Your task to perform on an android device: Open Youtube and go to the subscriptions tab Image 0: 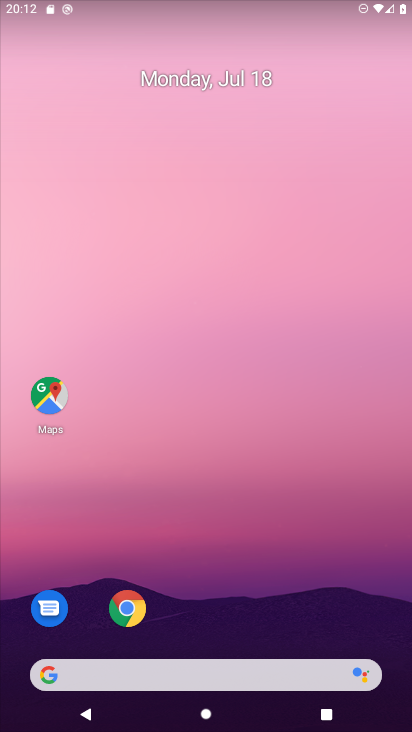
Step 0: drag from (204, 636) to (301, 111)
Your task to perform on an android device: Open Youtube and go to the subscriptions tab Image 1: 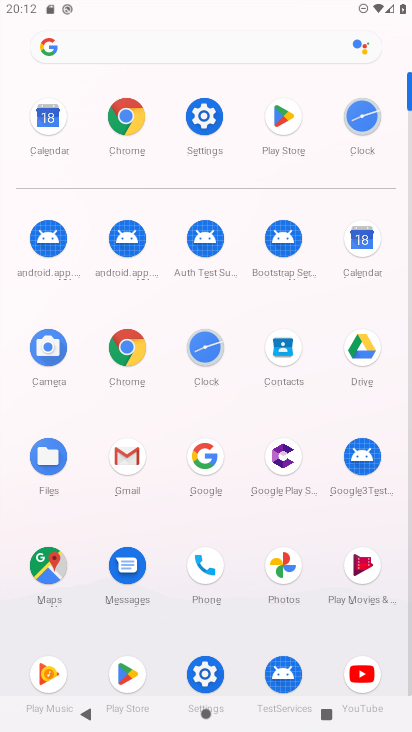
Step 1: click (354, 670)
Your task to perform on an android device: Open Youtube and go to the subscriptions tab Image 2: 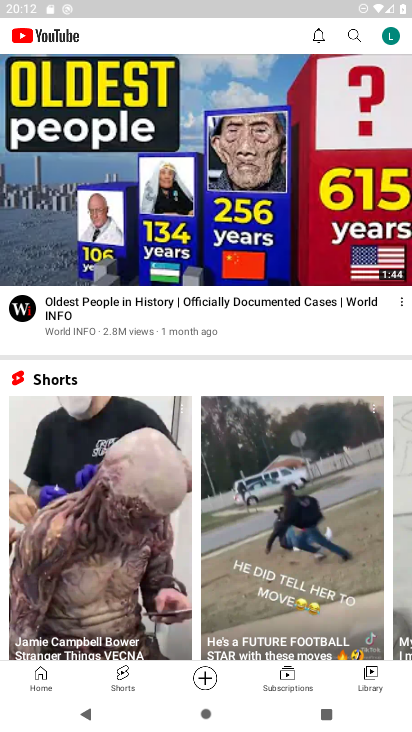
Step 2: click (282, 680)
Your task to perform on an android device: Open Youtube and go to the subscriptions tab Image 3: 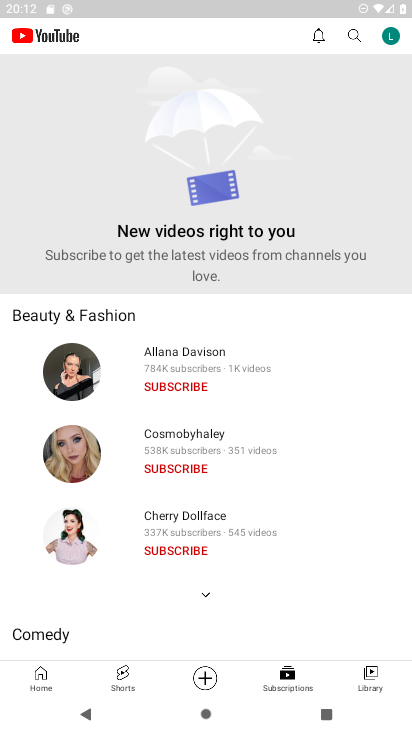
Step 3: task complete